Your task to perform on an android device: turn on javascript in the chrome app Image 0: 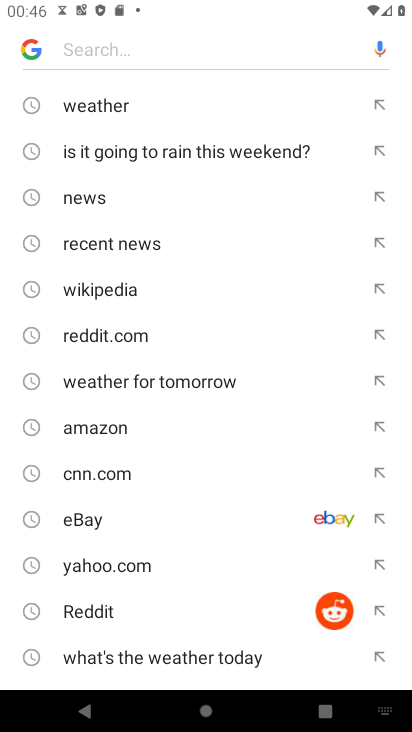
Step 0: press back button
Your task to perform on an android device: turn on javascript in the chrome app Image 1: 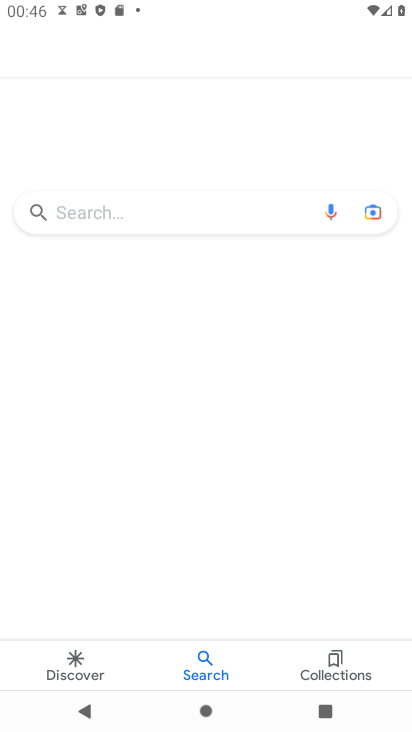
Step 1: press back button
Your task to perform on an android device: turn on javascript in the chrome app Image 2: 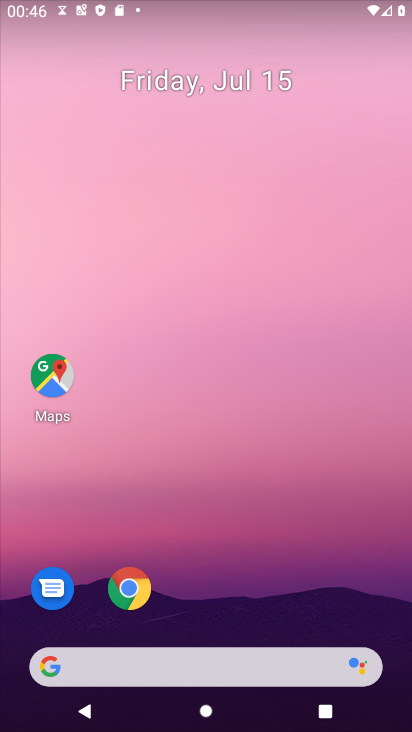
Step 2: click (134, 586)
Your task to perform on an android device: turn on javascript in the chrome app Image 3: 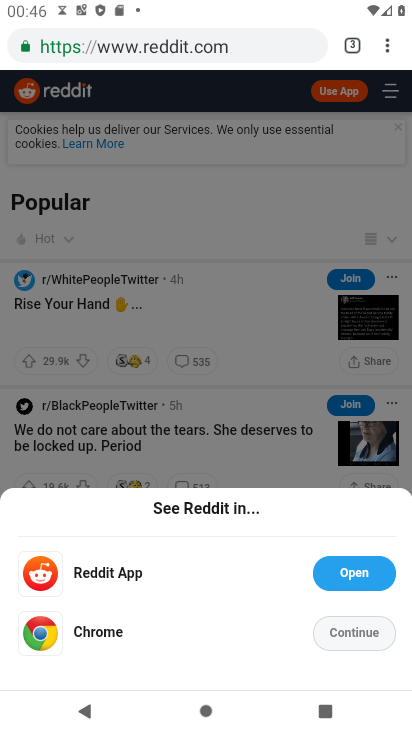
Step 3: drag from (387, 50) to (219, 552)
Your task to perform on an android device: turn on javascript in the chrome app Image 4: 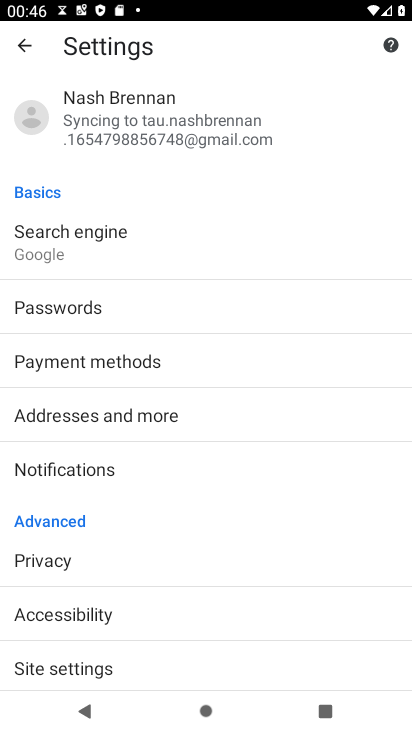
Step 4: drag from (128, 646) to (192, 203)
Your task to perform on an android device: turn on javascript in the chrome app Image 5: 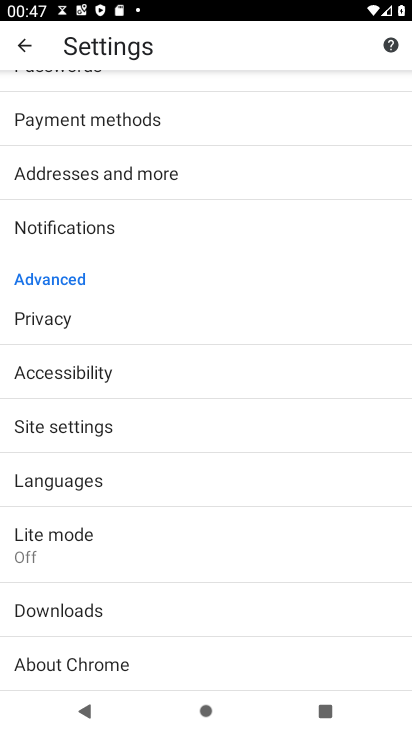
Step 5: click (61, 427)
Your task to perform on an android device: turn on javascript in the chrome app Image 6: 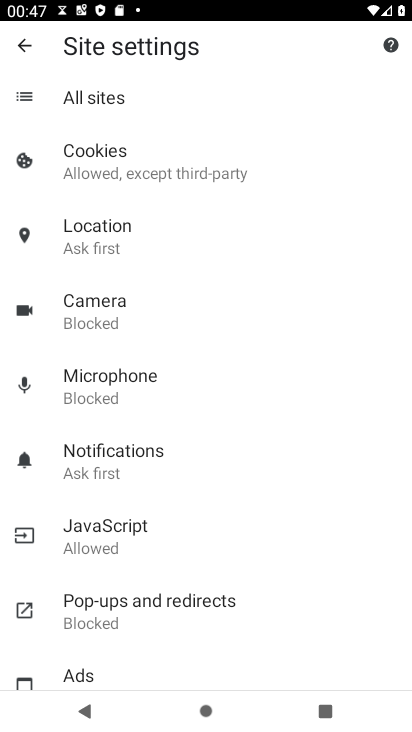
Step 6: click (118, 540)
Your task to perform on an android device: turn on javascript in the chrome app Image 7: 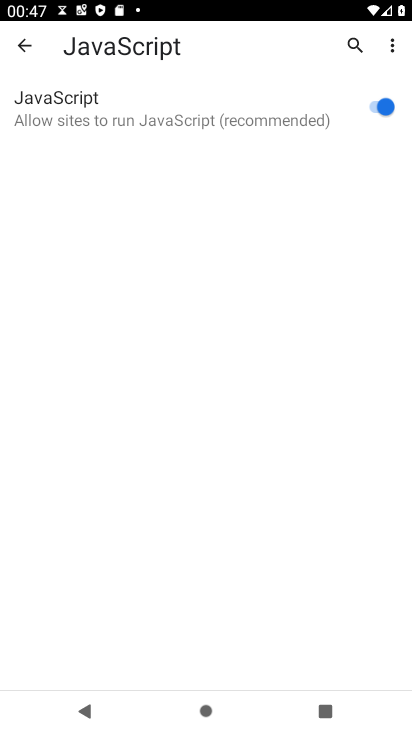
Step 7: task complete